Your task to perform on an android device: turn on notifications settings in the gmail app Image 0: 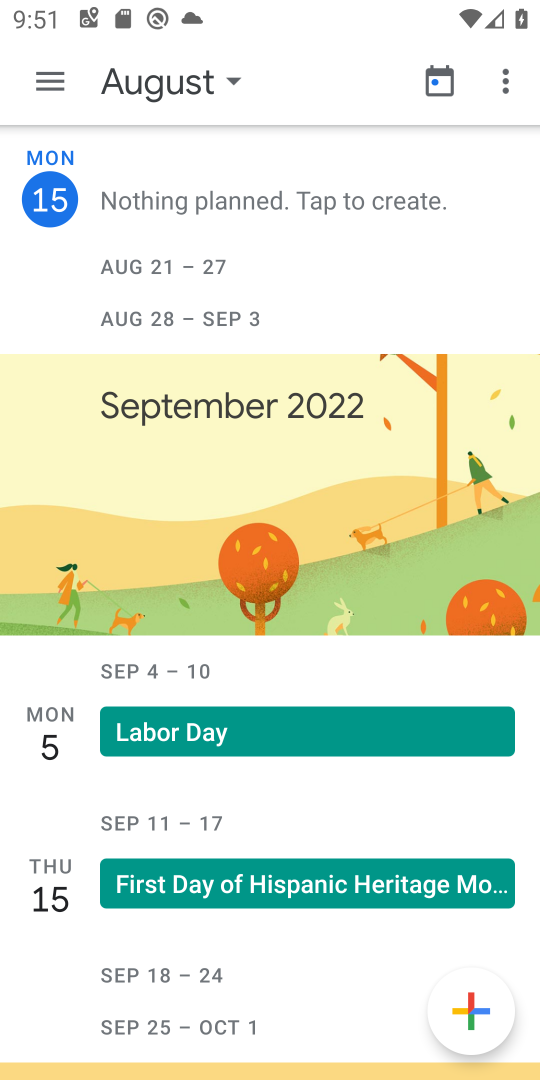
Step 0: press home button
Your task to perform on an android device: turn on notifications settings in the gmail app Image 1: 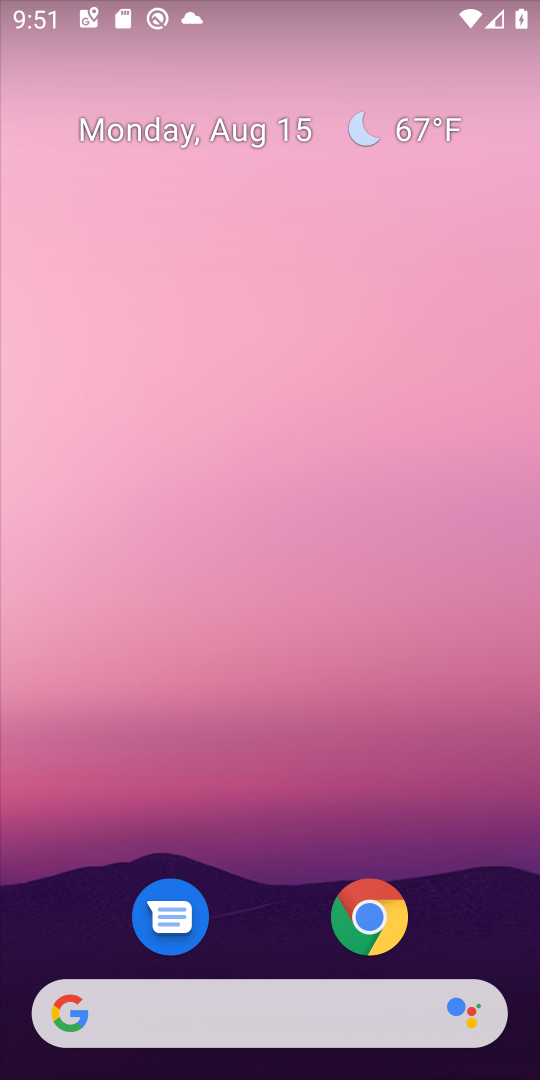
Step 1: drag from (271, 836) to (329, 0)
Your task to perform on an android device: turn on notifications settings in the gmail app Image 2: 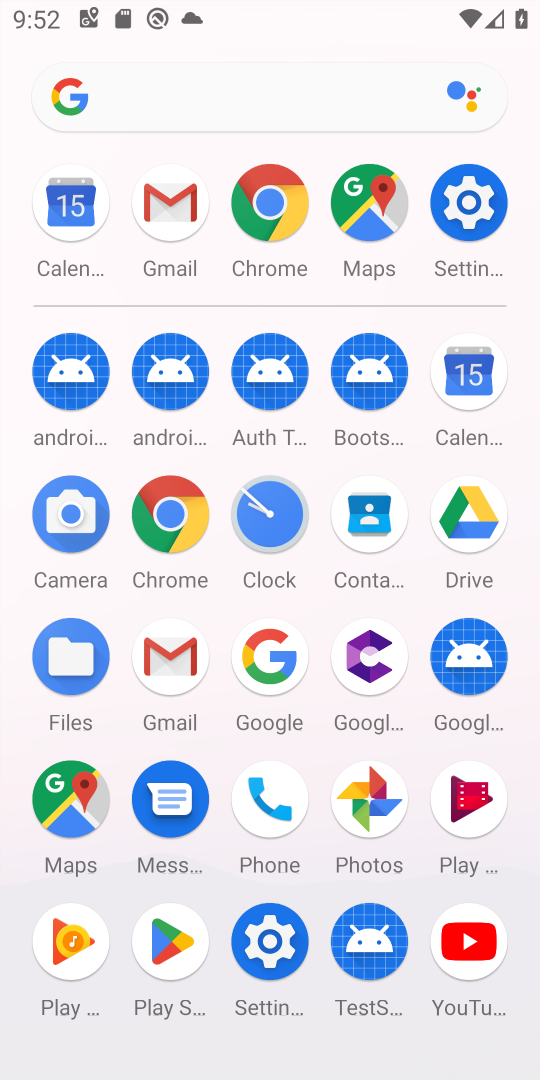
Step 2: click (178, 190)
Your task to perform on an android device: turn on notifications settings in the gmail app Image 3: 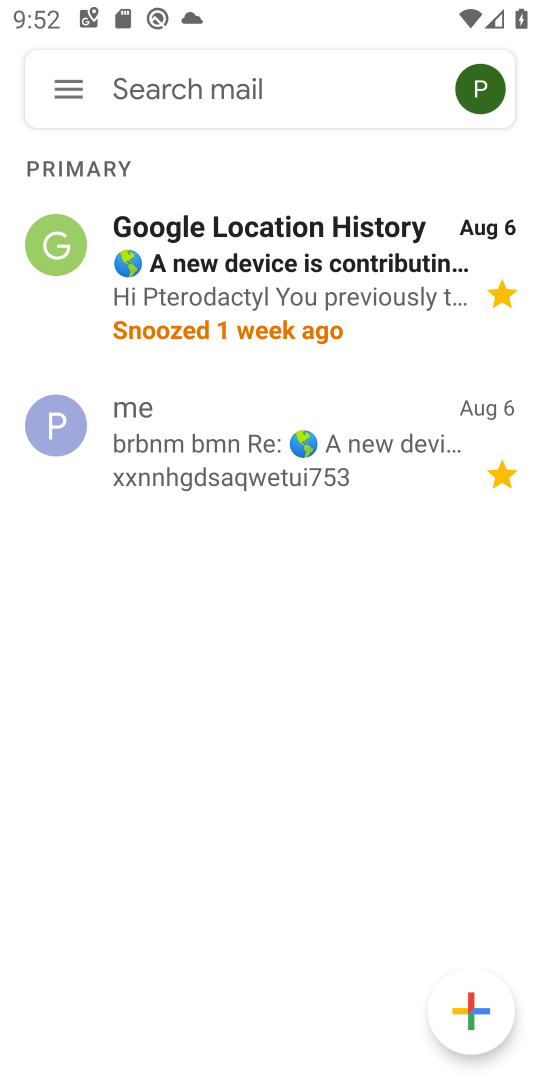
Step 3: click (71, 91)
Your task to perform on an android device: turn on notifications settings in the gmail app Image 4: 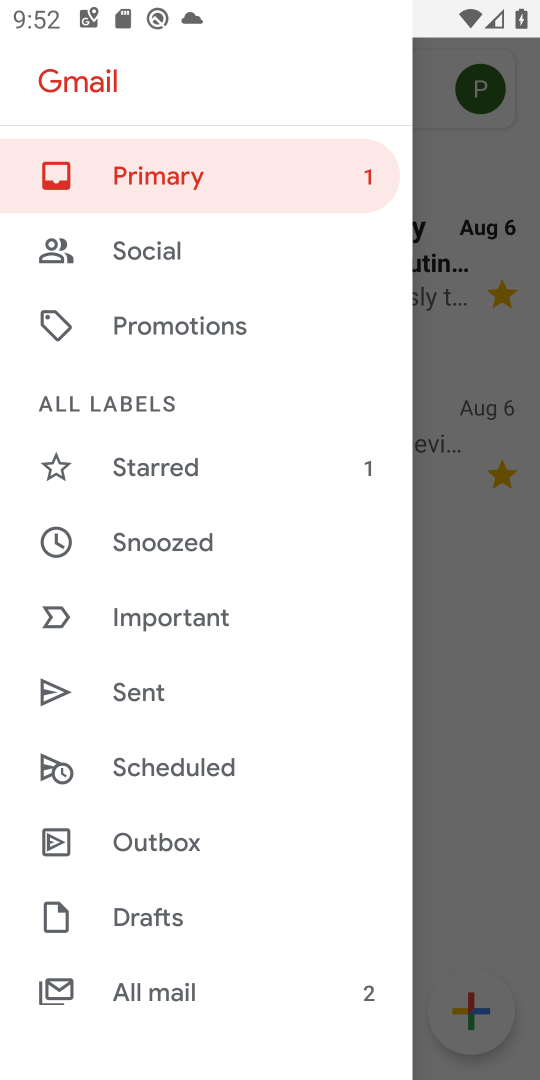
Step 4: drag from (153, 798) to (303, 131)
Your task to perform on an android device: turn on notifications settings in the gmail app Image 5: 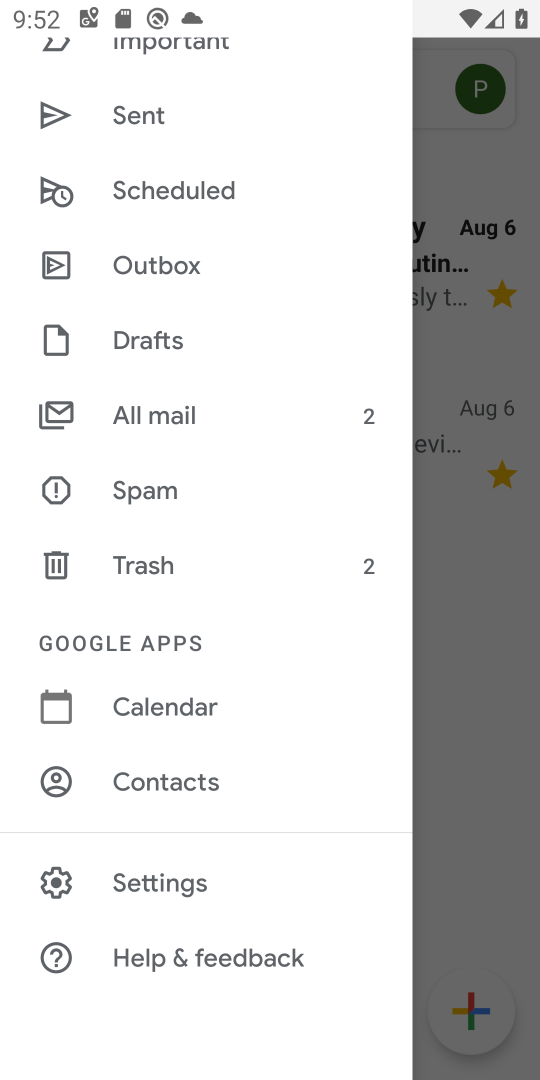
Step 5: click (181, 885)
Your task to perform on an android device: turn on notifications settings in the gmail app Image 6: 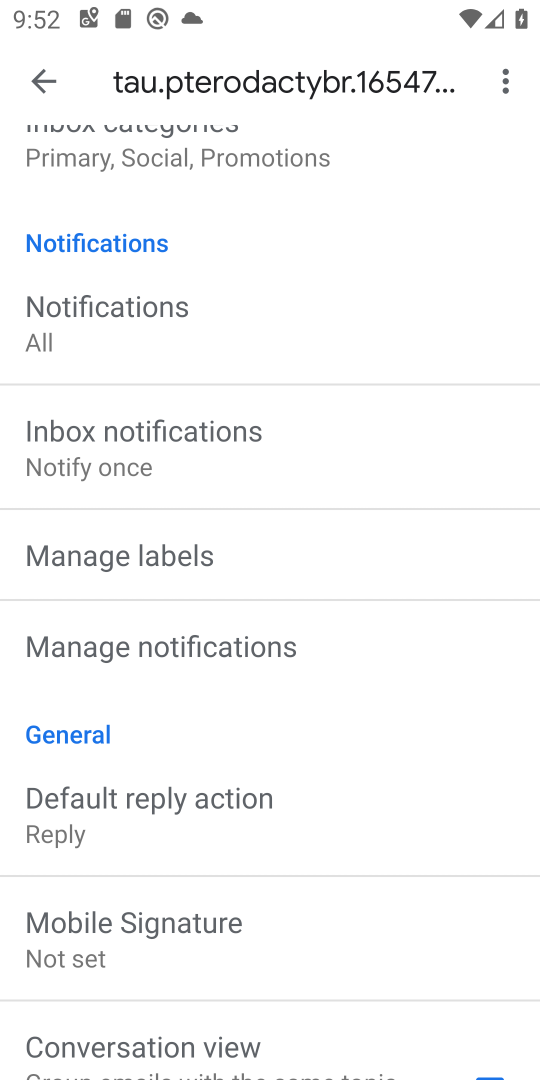
Step 6: click (208, 645)
Your task to perform on an android device: turn on notifications settings in the gmail app Image 7: 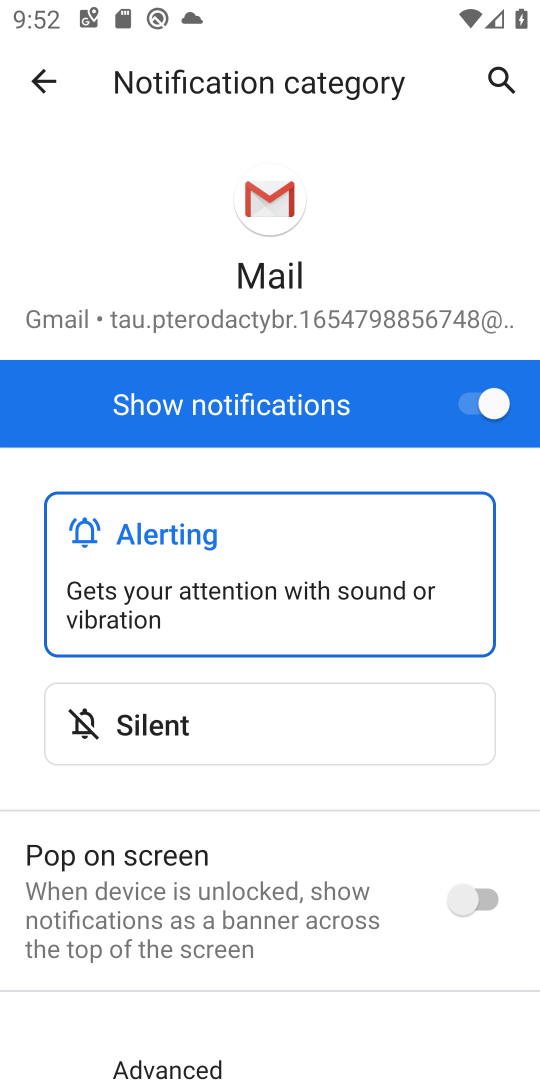
Step 7: task complete